Your task to perform on an android device: move a message to another label in the gmail app Image 0: 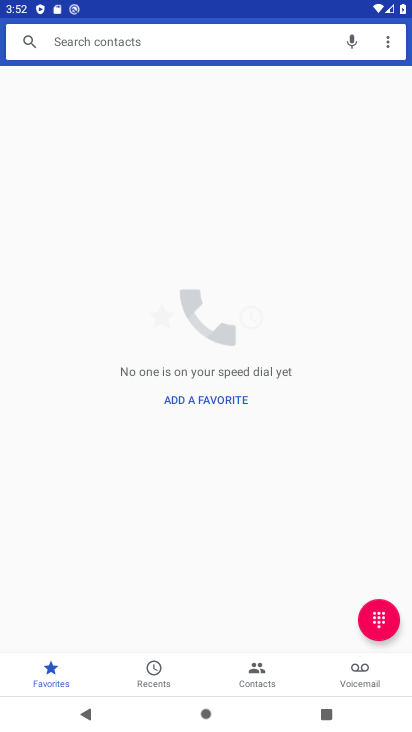
Step 0: press home button
Your task to perform on an android device: move a message to another label in the gmail app Image 1: 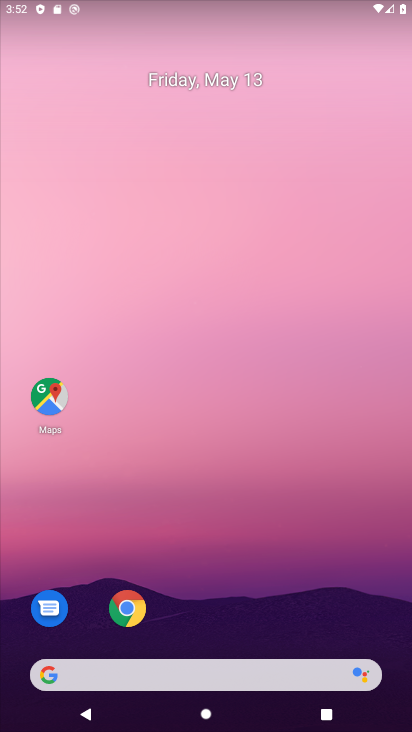
Step 1: drag from (296, 731) to (298, 22)
Your task to perform on an android device: move a message to another label in the gmail app Image 2: 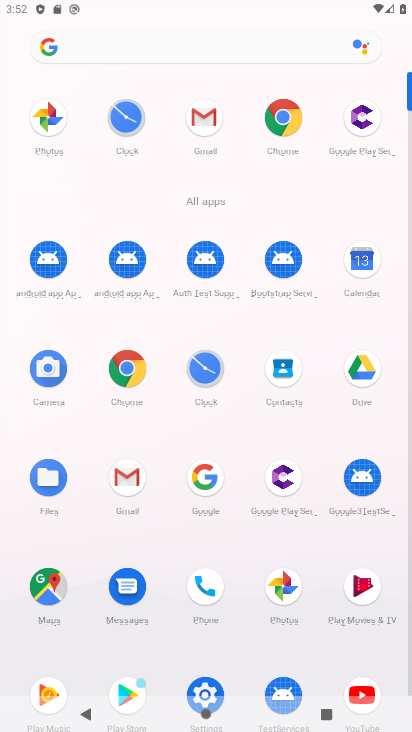
Step 2: click (122, 473)
Your task to perform on an android device: move a message to another label in the gmail app Image 3: 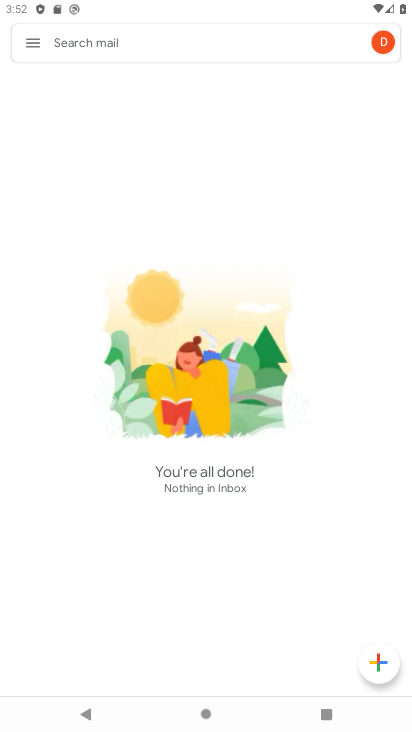
Step 3: click (30, 38)
Your task to perform on an android device: move a message to another label in the gmail app Image 4: 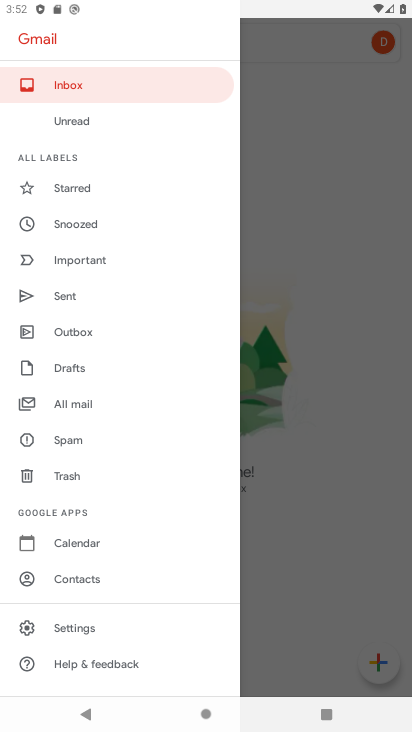
Step 4: task complete